Your task to perform on an android device: Is it going to rain tomorrow? Image 0: 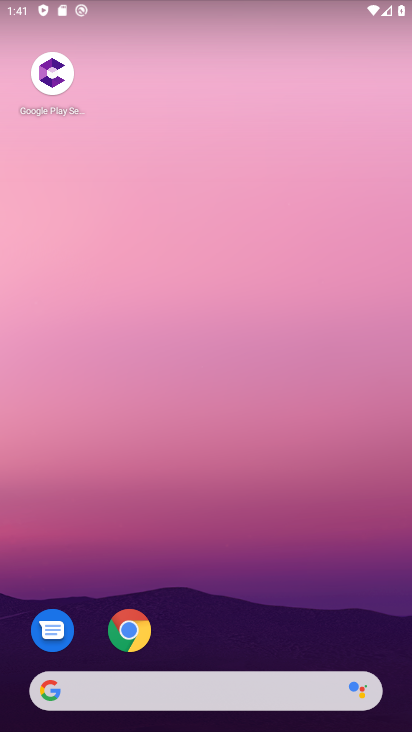
Step 0: click (139, 638)
Your task to perform on an android device: Is it going to rain tomorrow? Image 1: 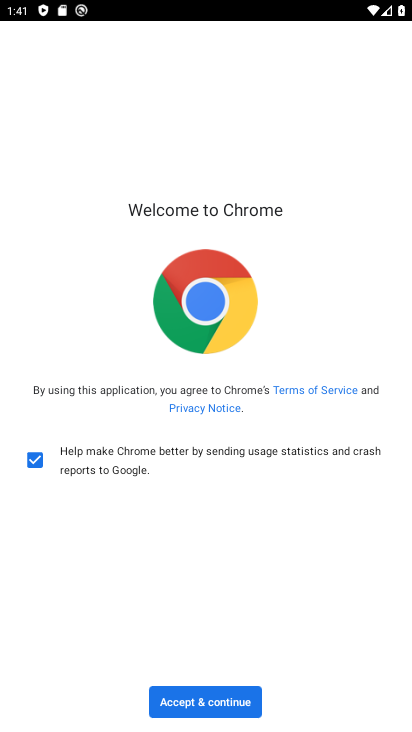
Step 1: click (215, 708)
Your task to perform on an android device: Is it going to rain tomorrow? Image 2: 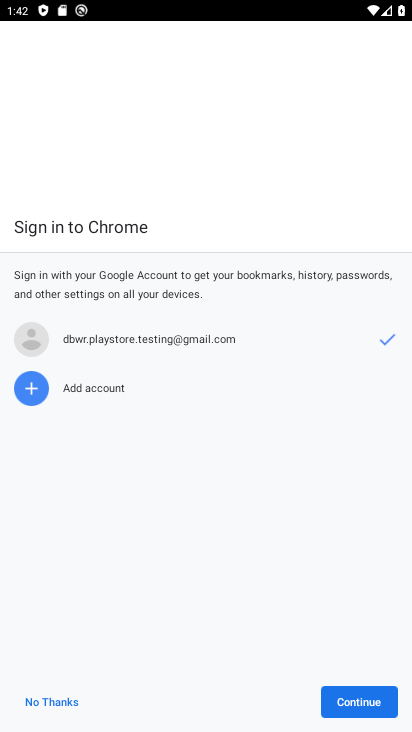
Step 2: click (374, 712)
Your task to perform on an android device: Is it going to rain tomorrow? Image 3: 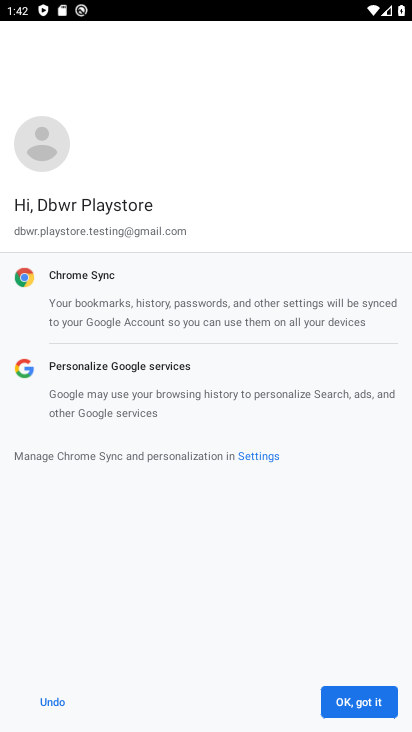
Step 3: click (374, 712)
Your task to perform on an android device: Is it going to rain tomorrow? Image 4: 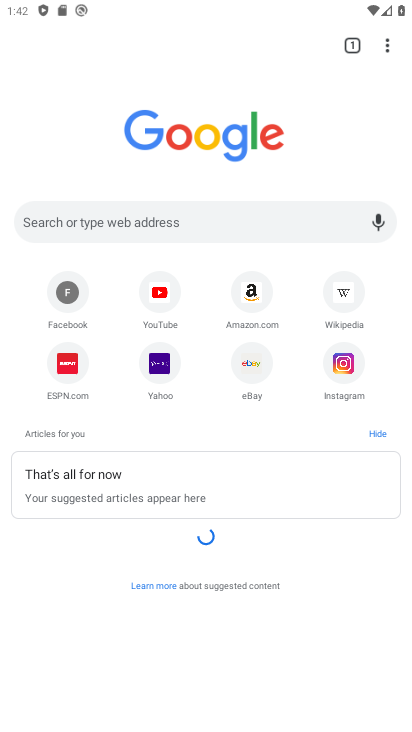
Step 4: click (201, 224)
Your task to perform on an android device: Is it going to rain tomorrow? Image 5: 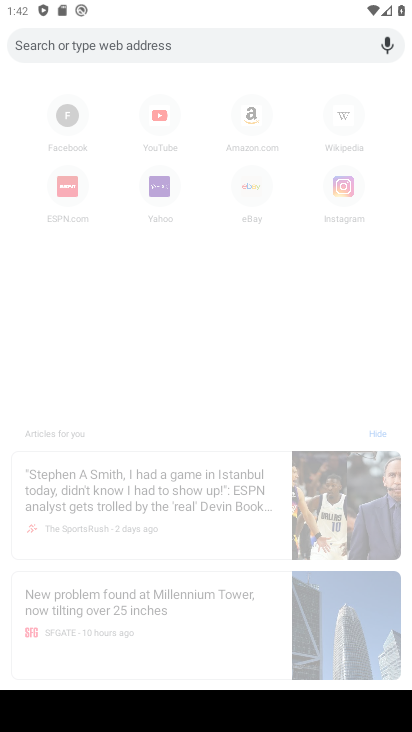
Step 5: type "is it going to rain tomorrow?"
Your task to perform on an android device: Is it going to rain tomorrow? Image 6: 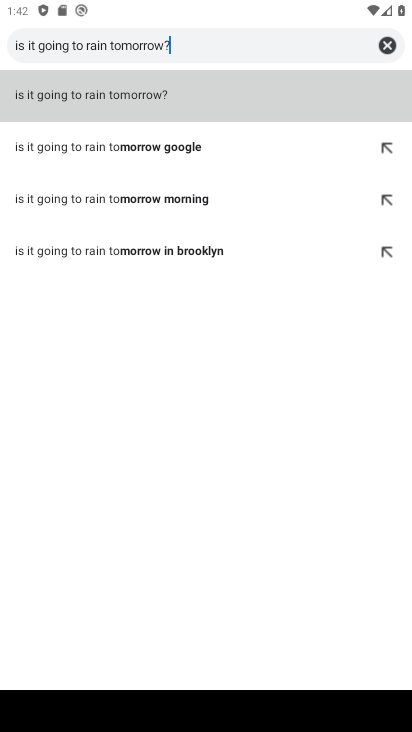
Step 6: click (203, 105)
Your task to perform on an android device: Is it going to rain tomorrow? Image 7: 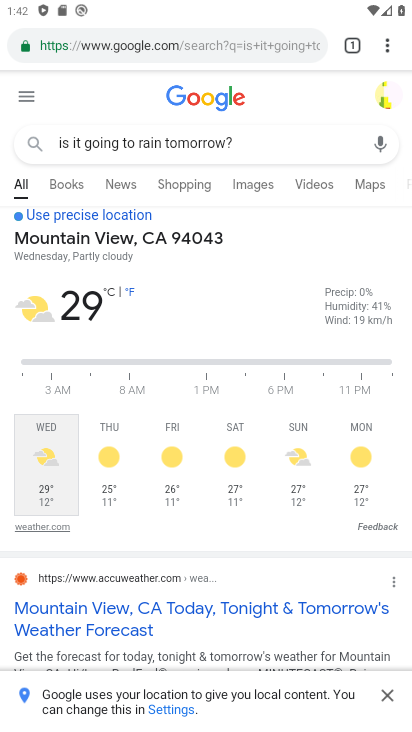
Step 7: task complete